Your task to perform on an android device: turn smart compose on in the gmail app Image 0: 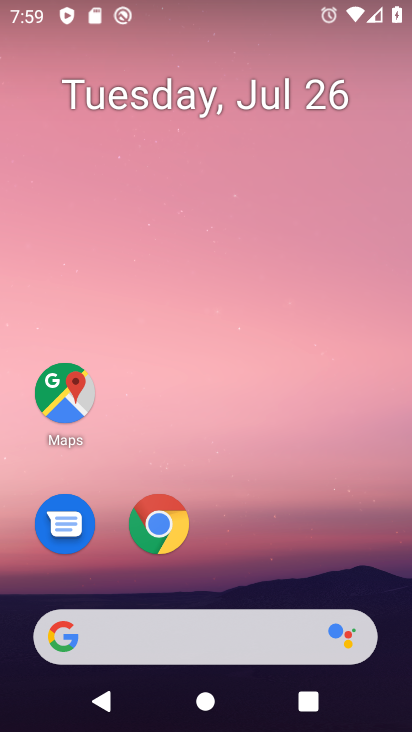
Step 0: drag from (282, 562) to (260, 79)
Your task to perform on an android device: turn smart compose on in the gmail app Image 1: 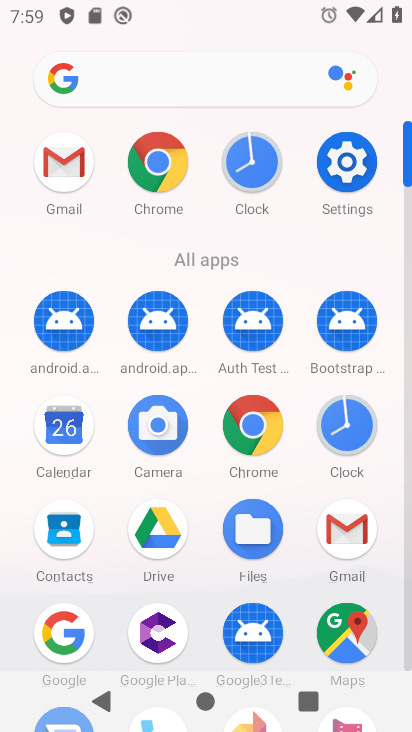
Step 1: click (72, 163)
Your task to perform on an android device: turn smart compose on in the gmail app Image 2: 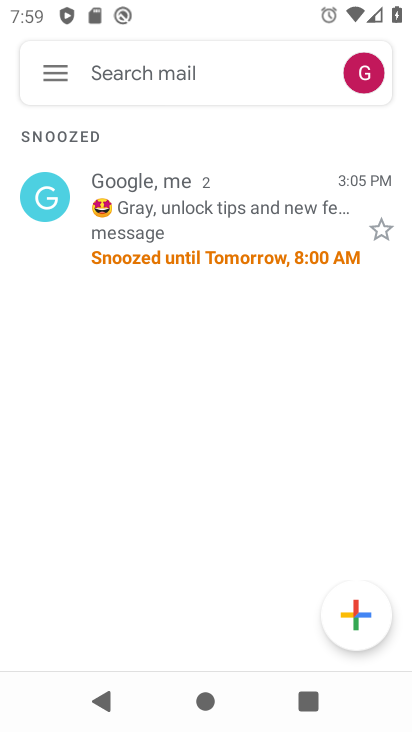
Step 2: click (60, 65)
Your task to perform on an android device: turn smart compose on in the gmail app Image 3: 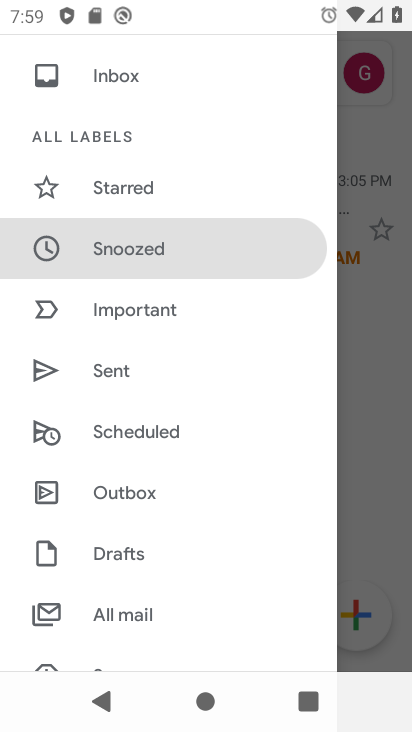
Step 3: drag from (174, 554) to (161, 10)
Your task to perform on an android device: turn smart compose on in the gmail app Image 4: 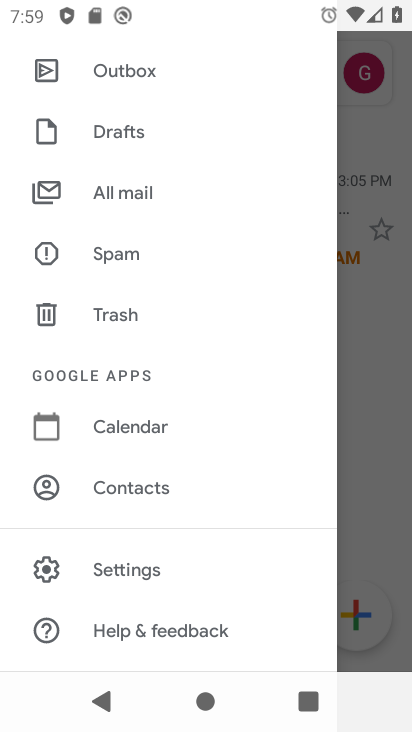
Step 4: click (128, 564)
Your task to perform on an android device: turn smart compose on in the gmail app Image 5: 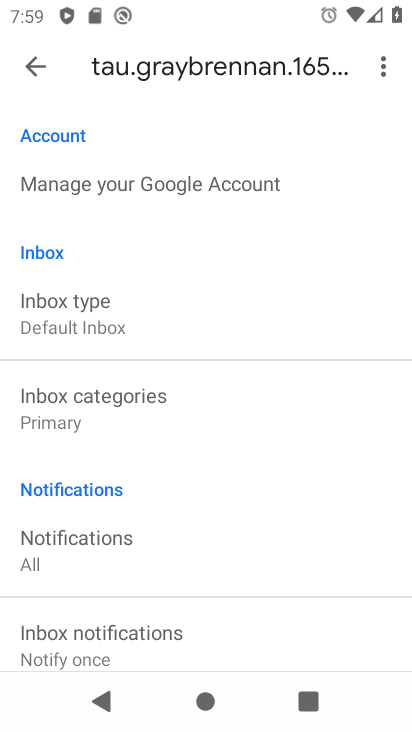
Step 5: task complete